Your task to perform on an android device: Go to battery settings Image 0: 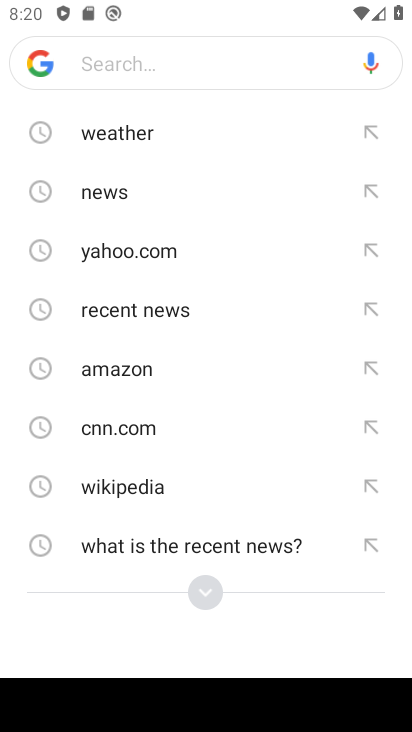
Step 0: drag from (253, 9) to (232, 567)
Your task to perform on an android device: Go to battery settings Image 1: 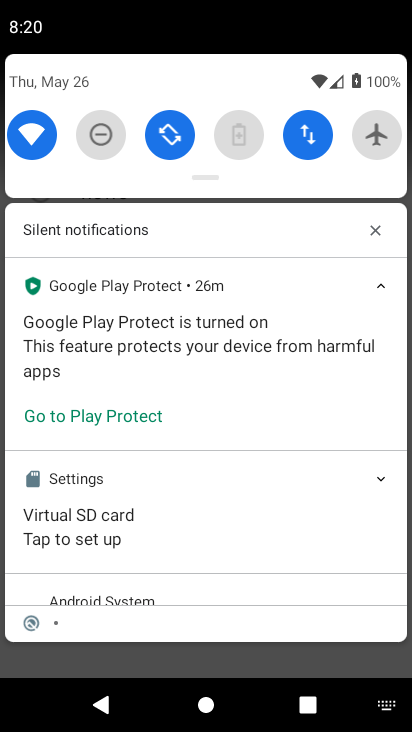
Step 1: drag from (201, 83) to (203, 610)
Your task to perform on an android device: Go to battery settings Image 2: 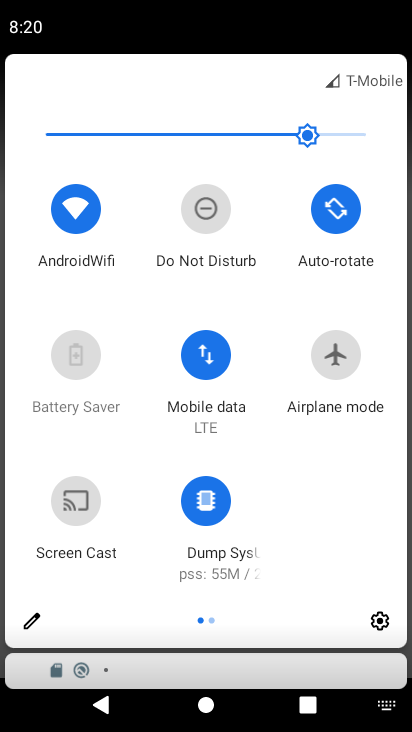
Step 2: click (381, 616)
Your task to perform on an android device: Go to battery settings Image 3: 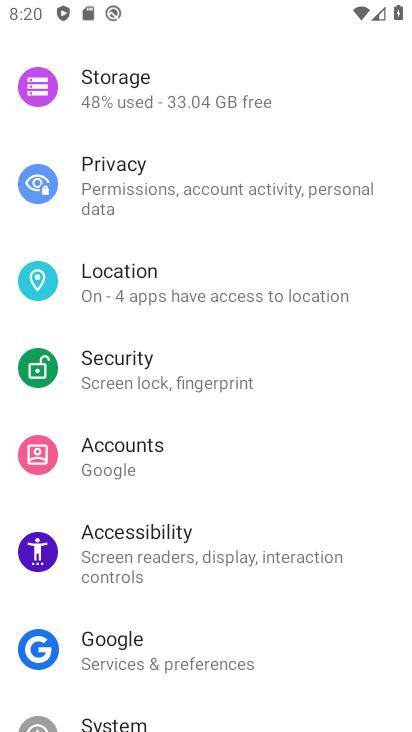
Step 3: drag from (190, 134) to (162, 685)
Your task to perform on an android device: Go to battery settings Image 4: 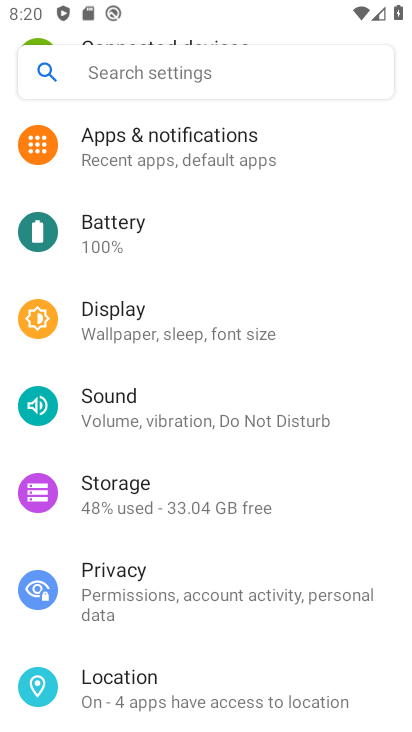
Step 4: click (134, 219)
Your task to perform on an android device: Go to battery settings Image 5: 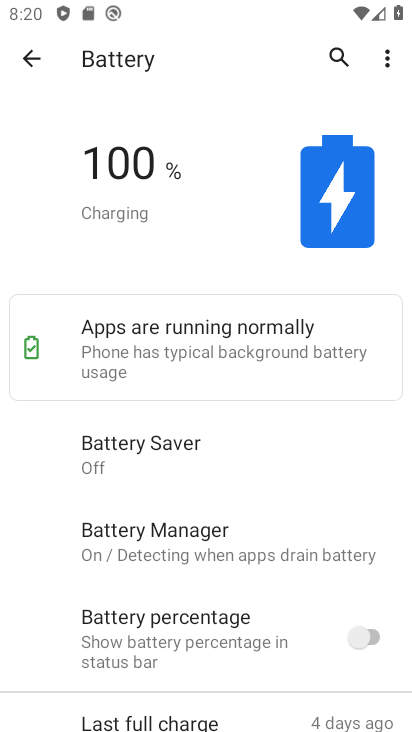
Step 5: task complete